Your task to perform on an android device: toggle location history Image 0: 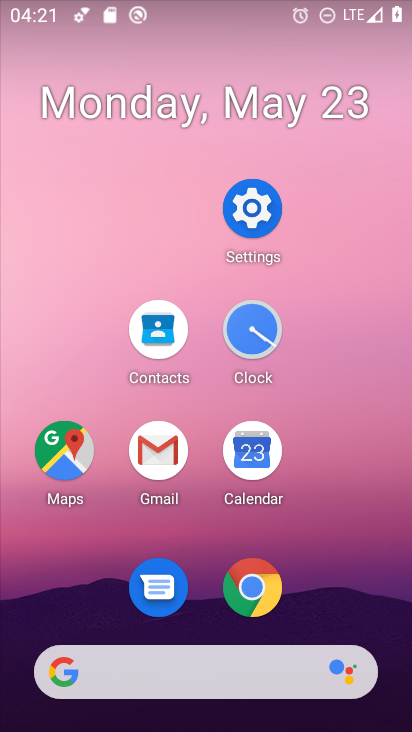
Step 0: click (258, 202)
Your task to perform on an android device: toggle location history Image 1: 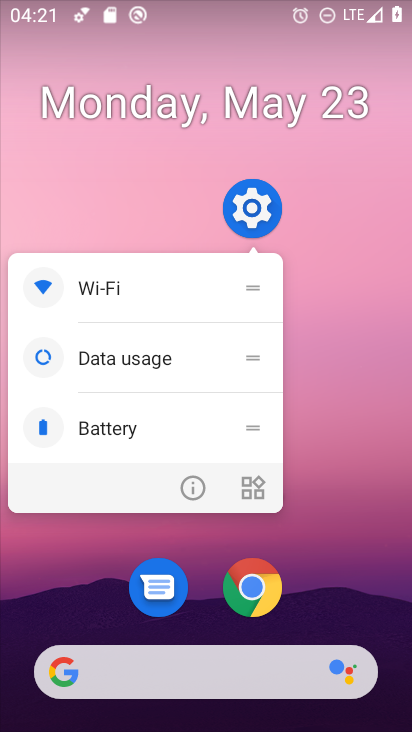
Step 1: click (234, 213)
Your task to perform on an android device: toggle location history Image 2: 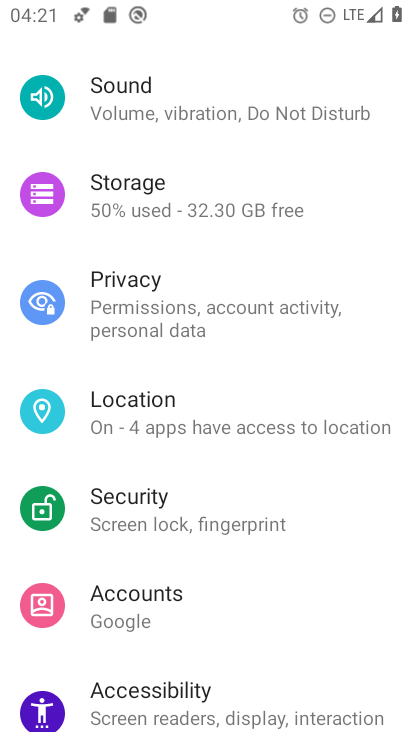
Step 2: click (209, 387)
Your task to perform on an android device: toggle location history Image 3: 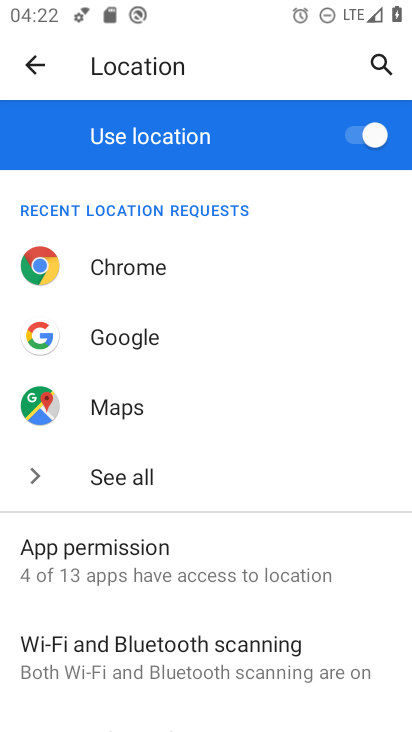
Step 3: drag from (183, 487) to (200, 166)
Your task to perform on an android device: toggle location history Image 4: 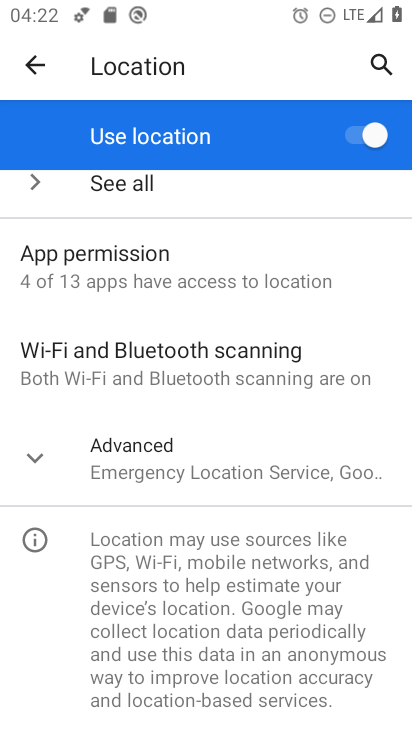
Step 4: click (201, 469)
Your task to perform on an android device: toggle location history Image 5: 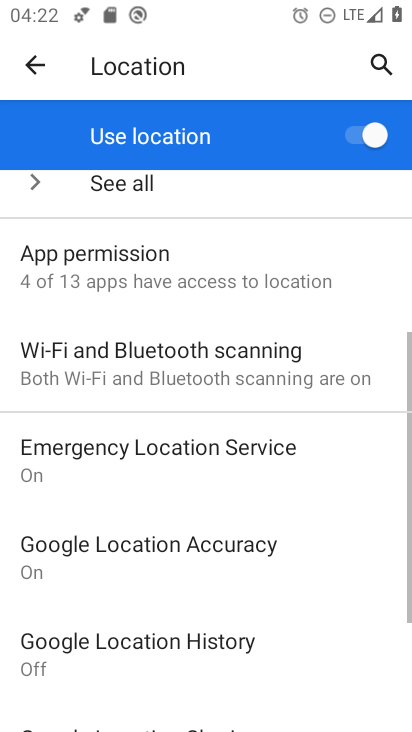
Step 5: drag from (213, 638) to (222, 422)
Your task to perform on an android device: toggle location history Image 6: 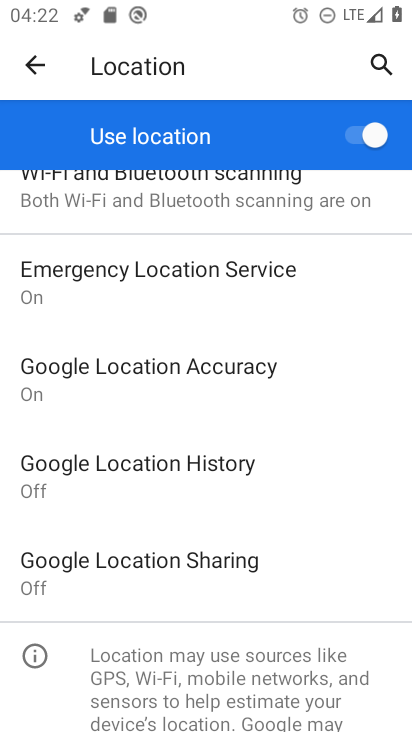
Step 6: click (227, 459)
Your task to perform on an android device: toggle location history Image 7: 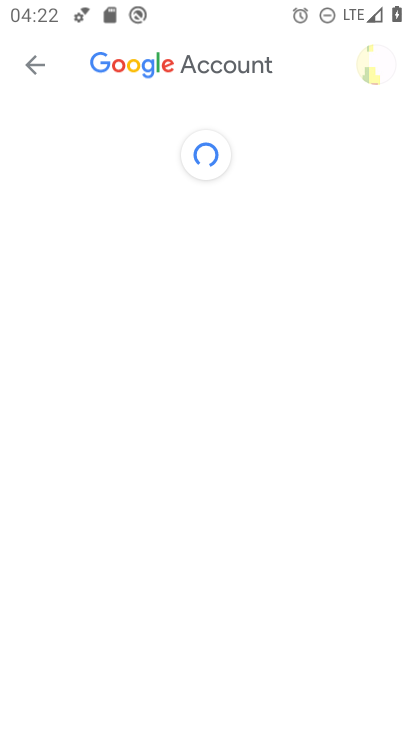
Step 7: task complete